Your task to perform on an android device: read, delete, or share a saved page in the chrome app Image 0: 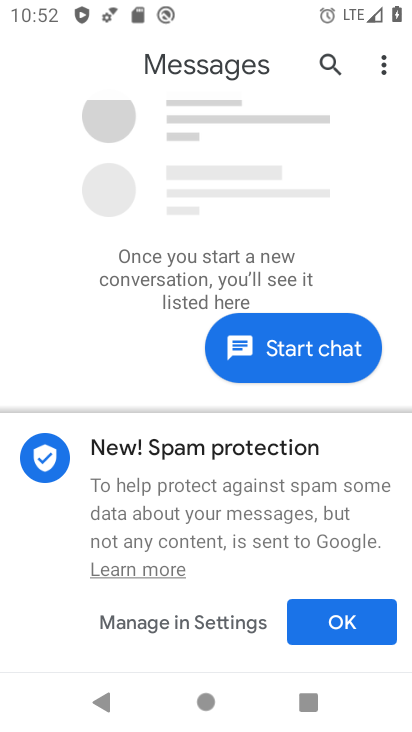
Step 0: press home button
Your task to perform on an android device: read, delete, or share a saved page in the chrome app Image 1: 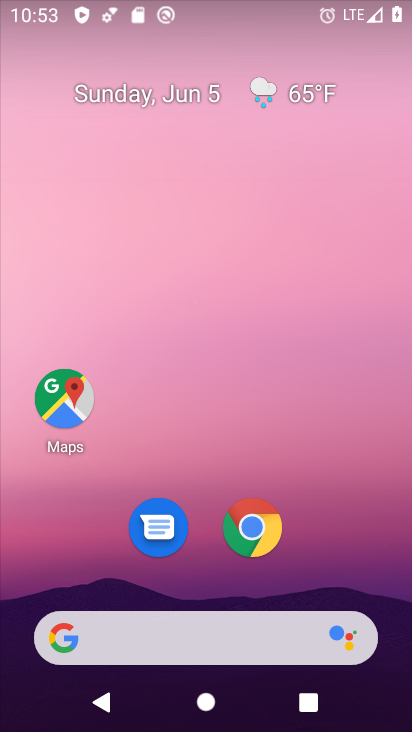
Step 1: drag from (129, 465) to (375, 154)
Your task to perform on an android device: read, delete, or share a saved page in the chrome app Image 2: 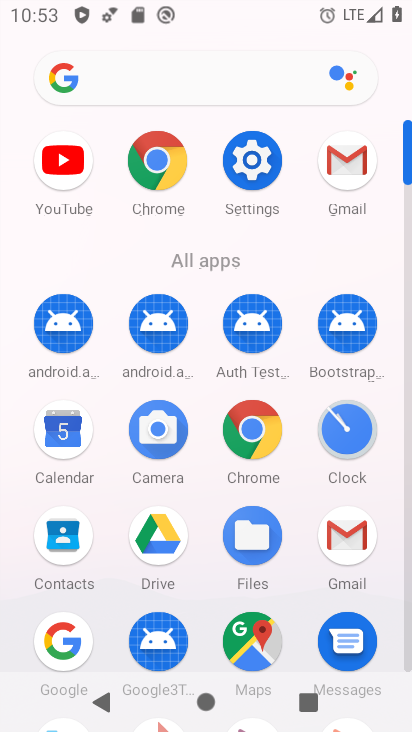
Step 2: click (237, 450)
Your task to perform on an android device: read, delete, or share a saved page in the chrome app Image 3: 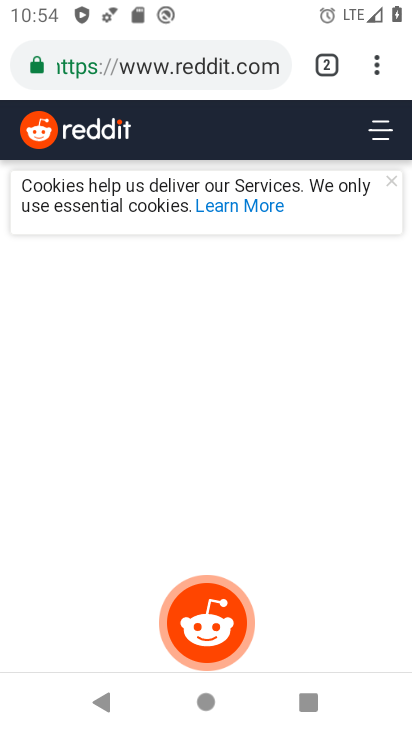
Step 3: press home button
Your task to perform on an android device: read, delete, or share a saved page in the chrome app Image 4: 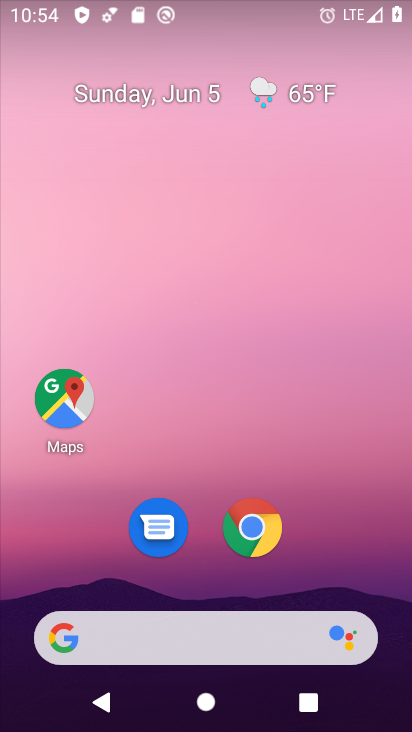
Step 4: click (257, 528)
Your task to perform on an android device: read, delete, or share a saved page in the chrome app Image 5: 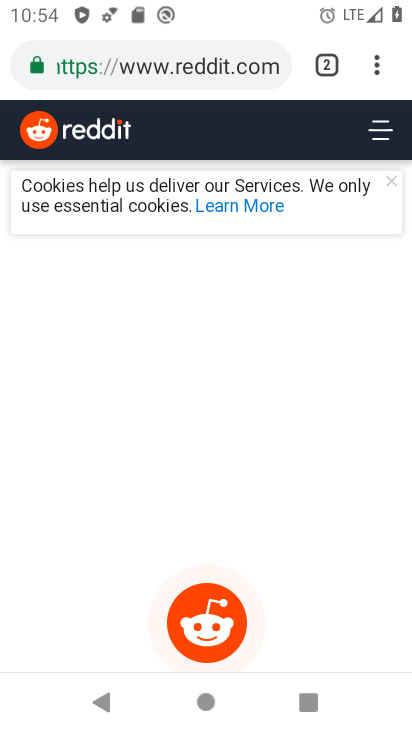
Step 5: click (323, 62)
Your task to perform on an android device: read, delete, or share a saved page in the chrome app Image 6: 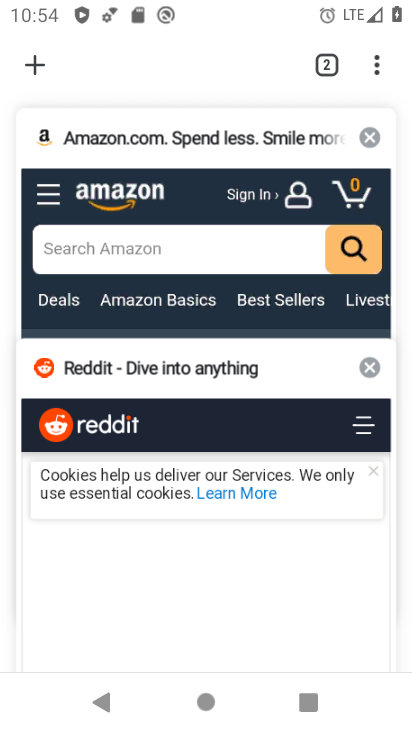
Step 6: click (368, 138)
Your task to perform on an android device: read, delete, or share a saved page in the chrome app Image 7: 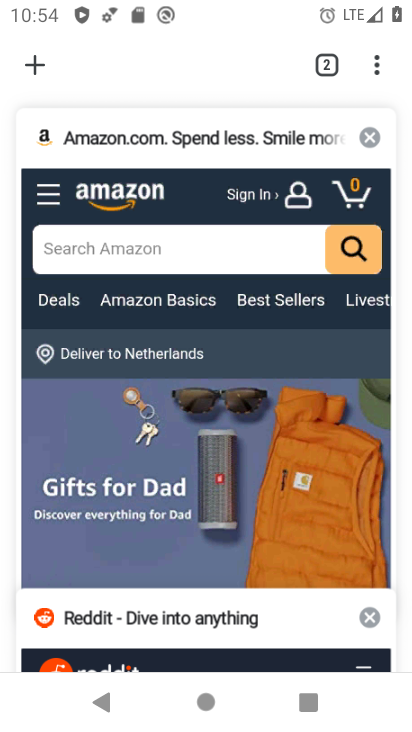
Step 7: click (368, 136)
Your task to perform on an android device: read, delete, or share a saved page in the chrome app Image 8: 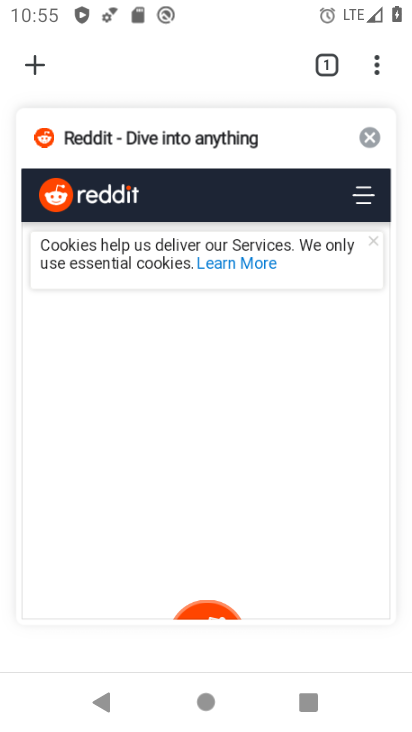
Step 8: click (375, 136)
Your task to perform on an android device: read, delete, or share a saved page in the chrome app Image 9: 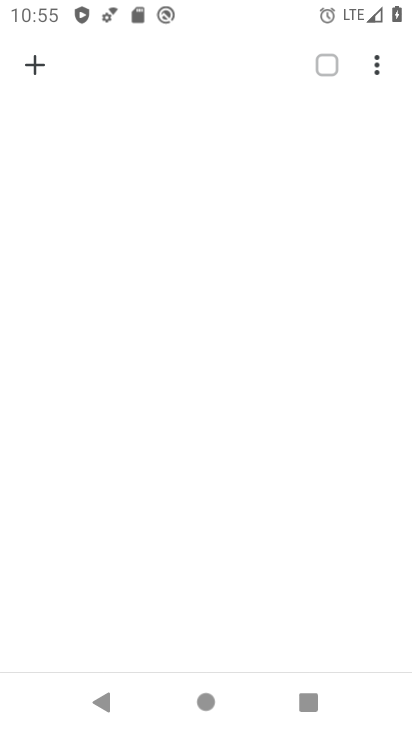
Step 9: click (35, 61)
Your task to perform on an android device: read, delete, or share a saved page in the chrome app Image 10: 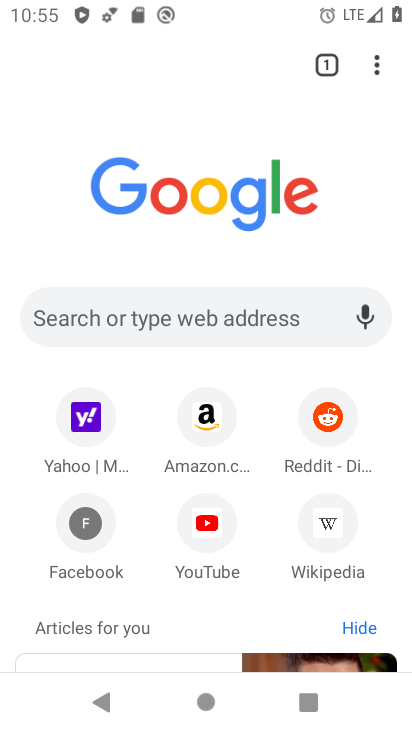
Step 10: click (211, 543)
Your task to perform on an android device: read, delete, or share a saved page in the chrome app Image 11: 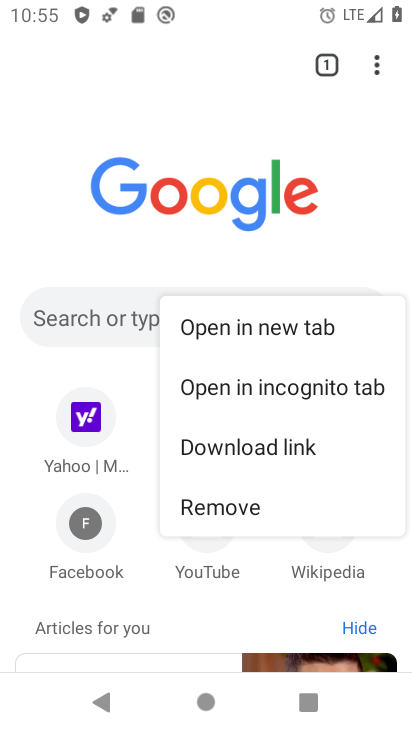
Step 11: click (222, 511)
Your task to perform on an android device: read, delete, or share a saved page in the chrome app Image 12: 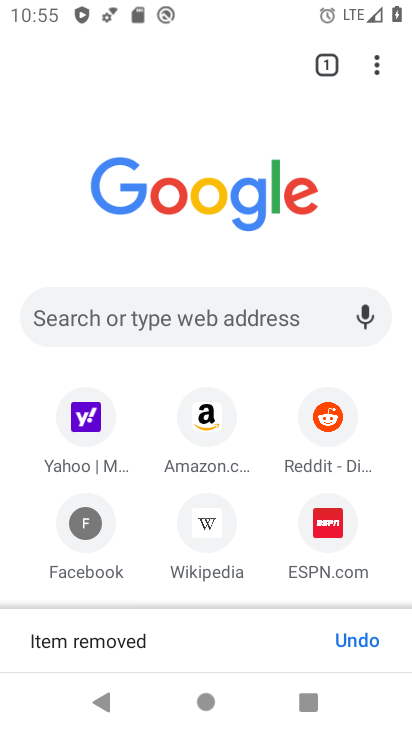
Step 12: task complete